Your task to perform on an android device: read, delete, or share a saved page in the chrome app Image 0: 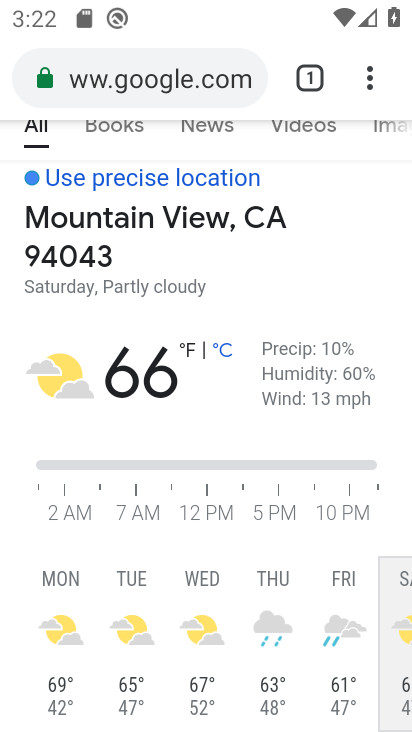
Step 0: press home button
Your task to perform on an android device: read, delete, or share a saved page in the chrome app Image 1: 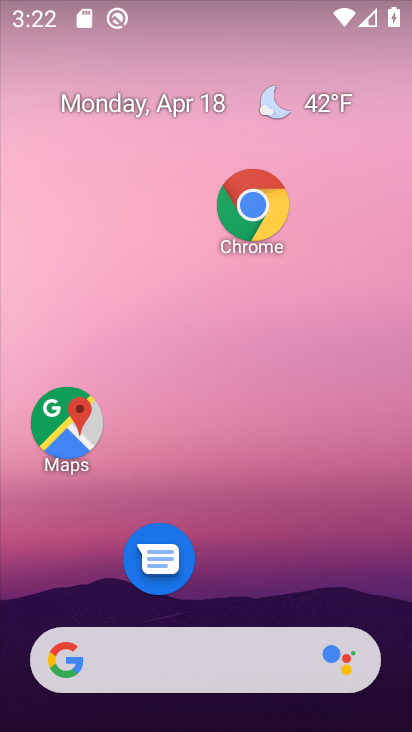
Step 1: click (251, 180)
Your task to perform on an android device: read, delete, or share a saved page in the chrome app Image 2: 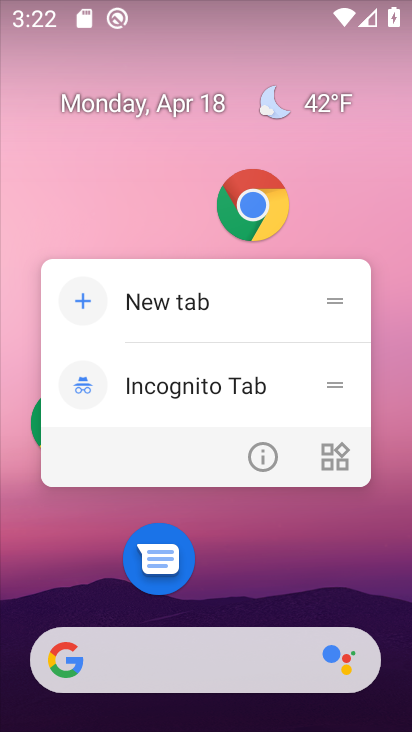
Step 2: click (252, 208)
Your task to perform on an android device: read, delete, or share a saved page in the chrome app Image 3: 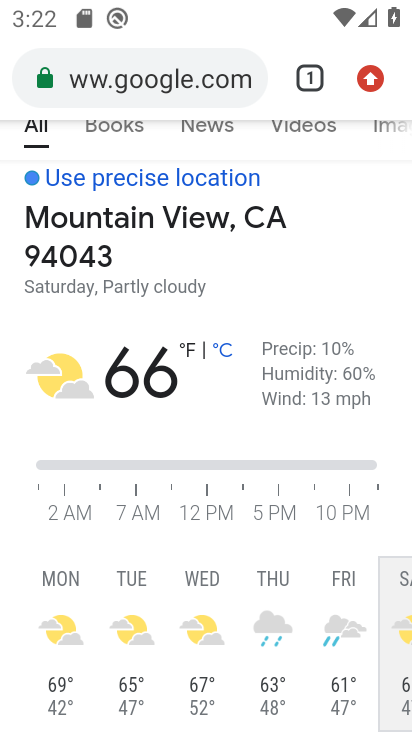
Step 3: click (380, 71)
Your task to perform on an android device: read, delete, or share a saved page in the chrome app Image 4: 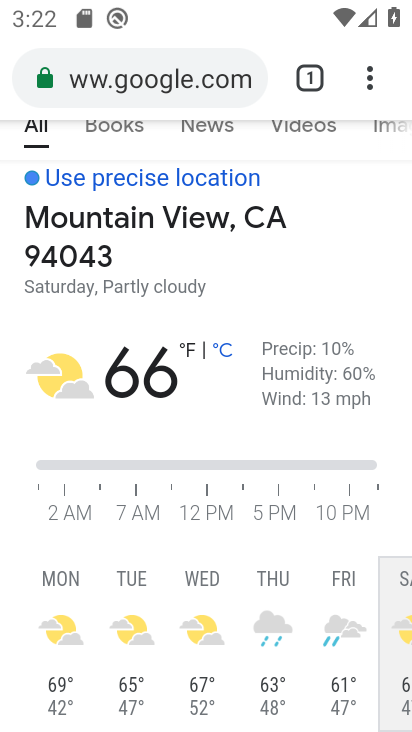
Step 4: click (374, 71)
Your task to perform on an android device: read, delete, or share a saved page in the chrome app Image 5: 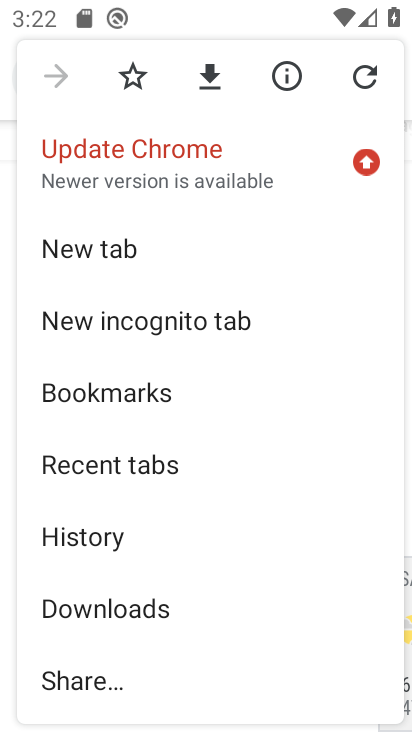
Step 5: click (127, 400)
Your task to perform on an android device: read, delete, or share a saved page in the chrome app Image 6: 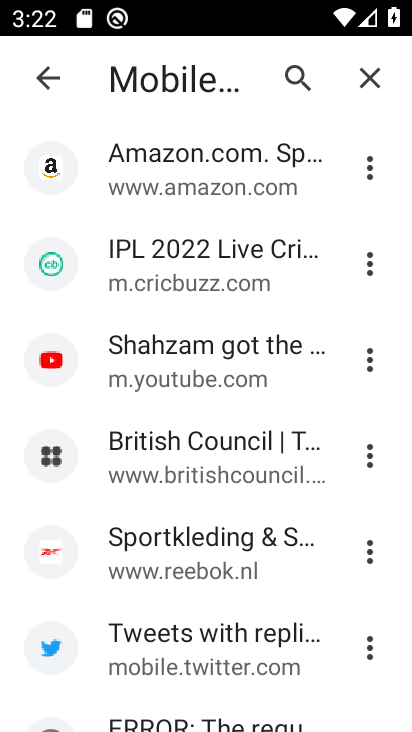
Step 6: click (52, 77)
Your task to perform on an android device: read, delete, or share a saved page in the chrome app Image 7: 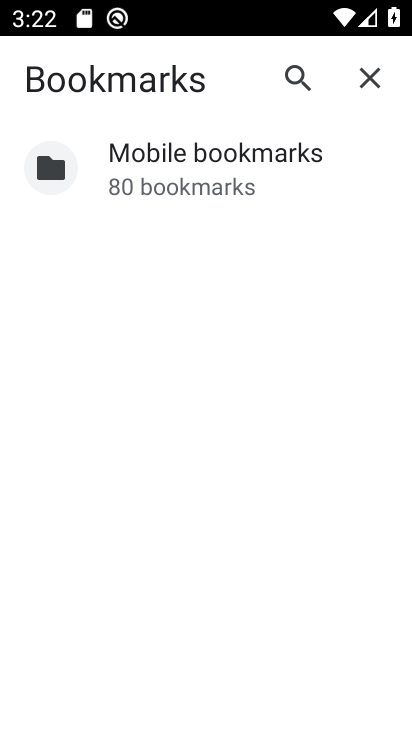
Step 7: click (196, 157)
Your task to perform on an android device: read, delete, or share a saved page in the chrome app Image 8: 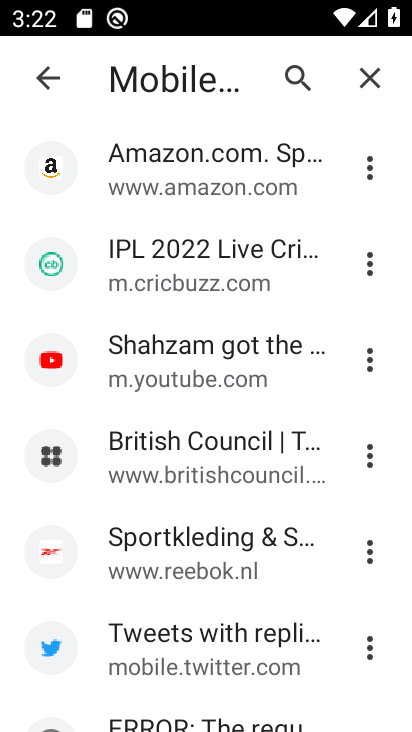
Step 8: click (367, 266)
Your task to perform on an android device: read, delete, or share a saved page in the chrome app Image 9: 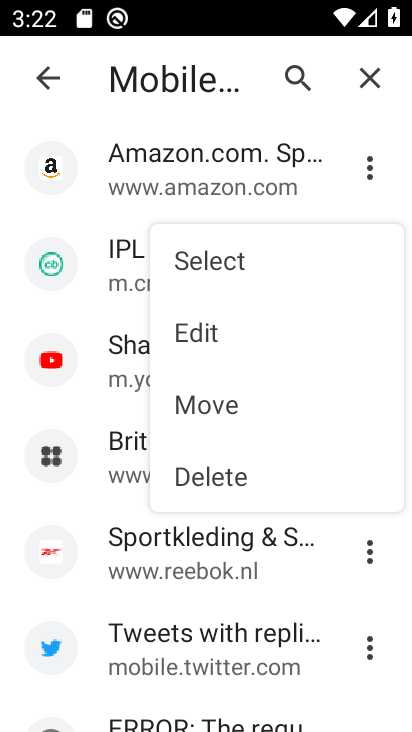
Step 9: click (210, 469)
Your task to perform on an android device: read, delete, or share a saved page in the chrome app Image 10: 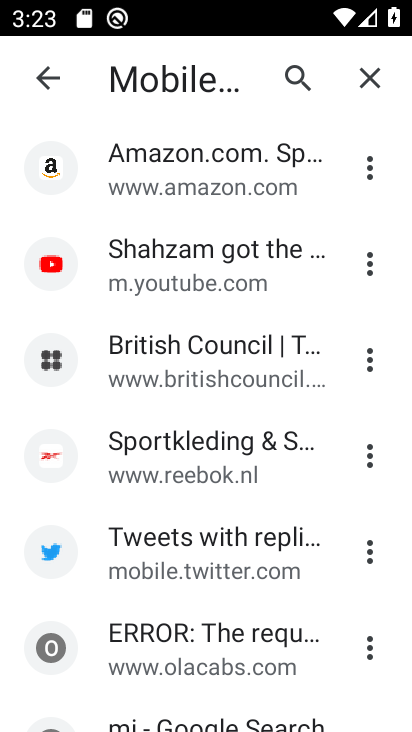
Step 10: press home button
Your task to perform on an android device: read, delete, or share a saved page in the chrome app Image 11: 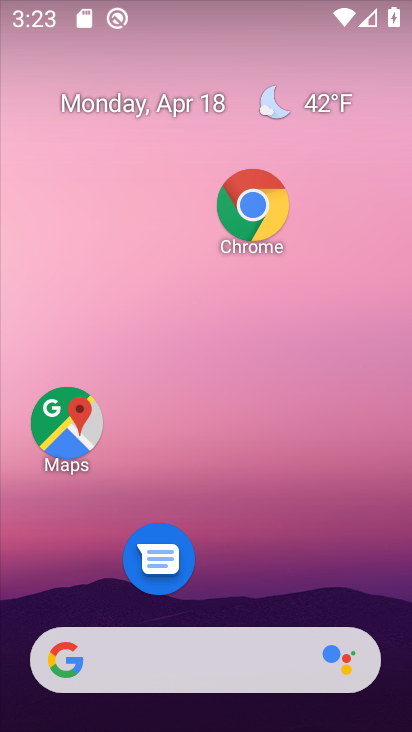
Step 11: click (254, 209)
Your task to perform on an android device: read, delete, or share a saved page in the chrome app Image 12: 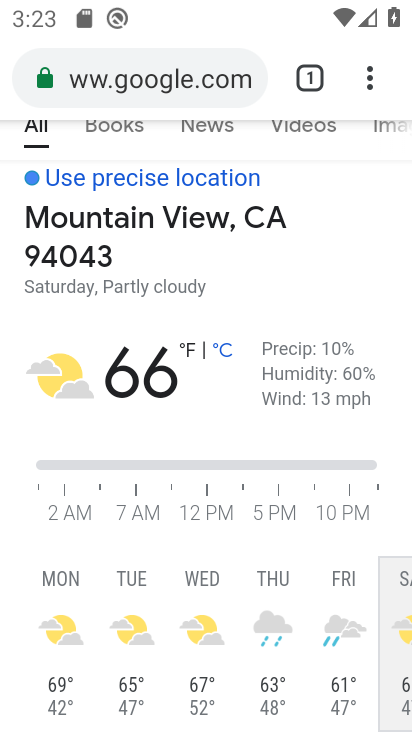
Step 12: click (375, 85)
Your task to perform on an android device: read, delete, or share a saved page in the chrome app Image 13: 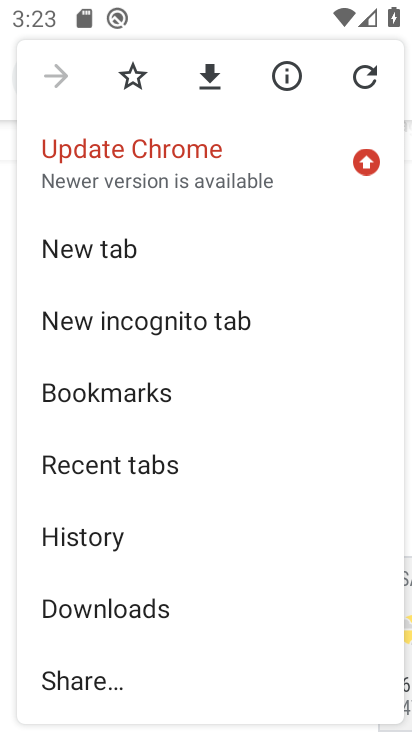
Step 13: click (97, 393)
Your task to perform on an android device: read, delete, or share a saved page in the chrome app Image 14: 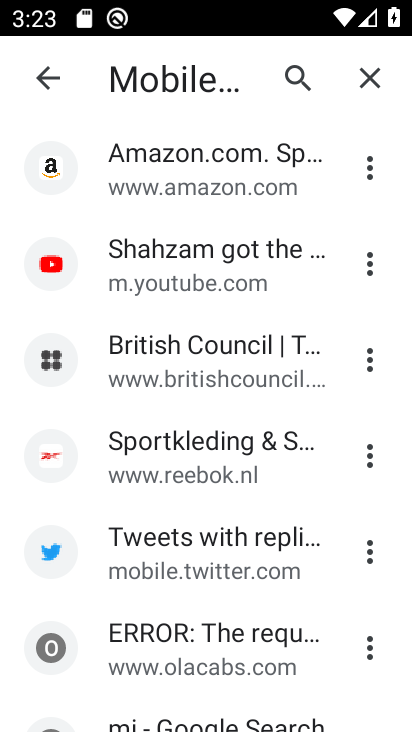
Step 14: drag from (177, 415) to (252, 168)
Your task to perform on an android device: read, delete, or share a saved page in the chrome app Image 15: 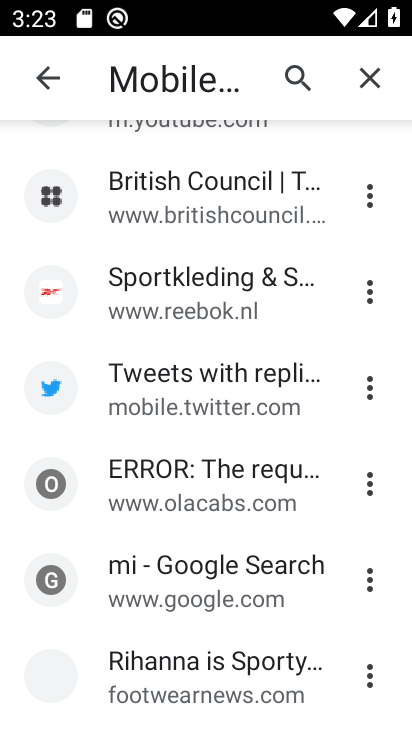
Step 15: click (363, 284)
Your task to perform on an android device: read, delete, or share a saved page in the chrome app Image 16: 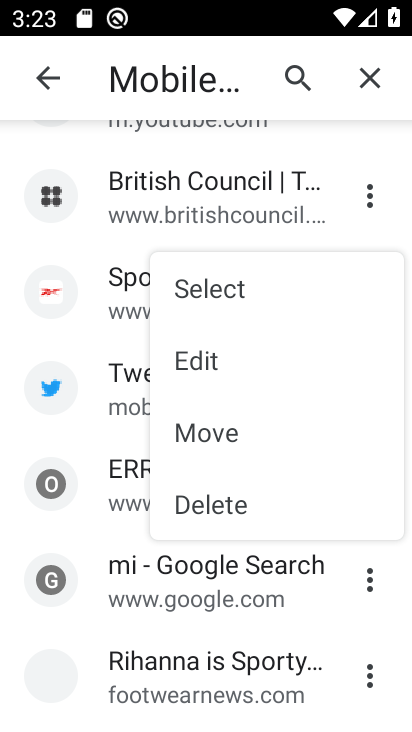
Step 16: click (242, 497)
Your task to perform on an android device: read, delete, or share a saved page in the chrome app Image 17: 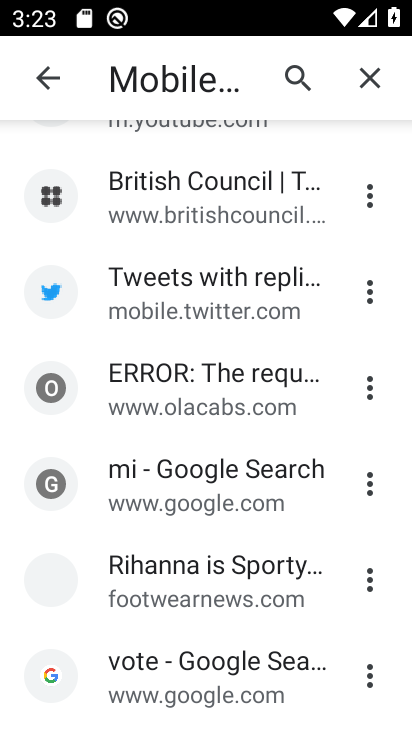
Step 17: task complete